Your task to perform on an android device: Open network settings Image 0: 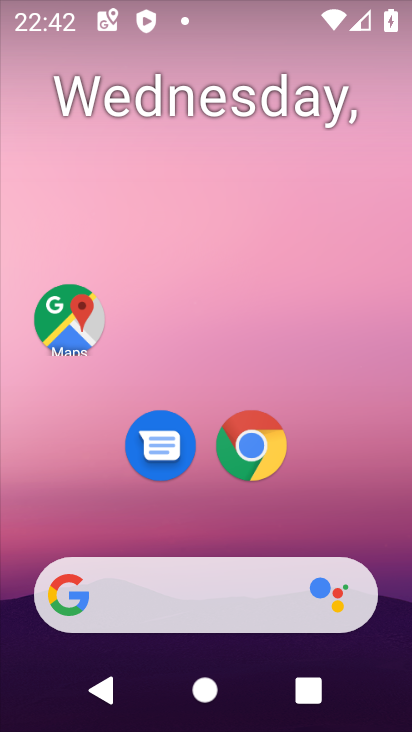
Step 0: drag from (338, 501) to (363, 215)
Your task to perform on an android device: Open network settings Image 1: 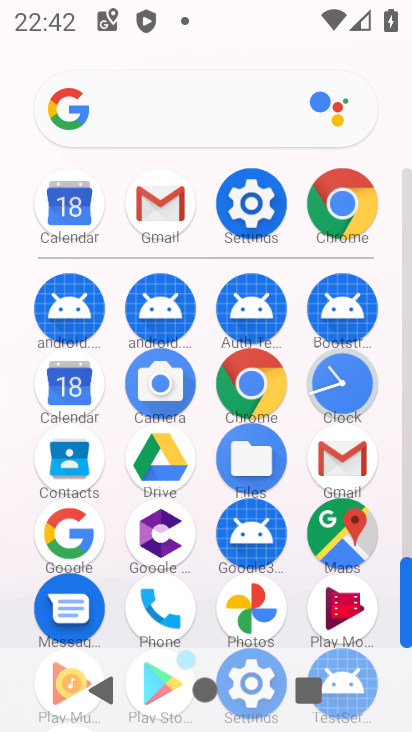
Step 1: click (265, 195)
Your task to perform on an android device: Open network settings Image 2: 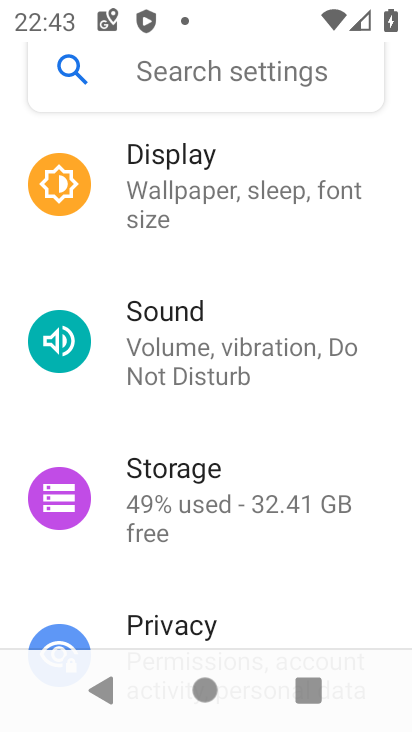
Step 2: drag from (200, 173) to (169, 581)
Your task to perform on an android device: Open network settings Image 3: 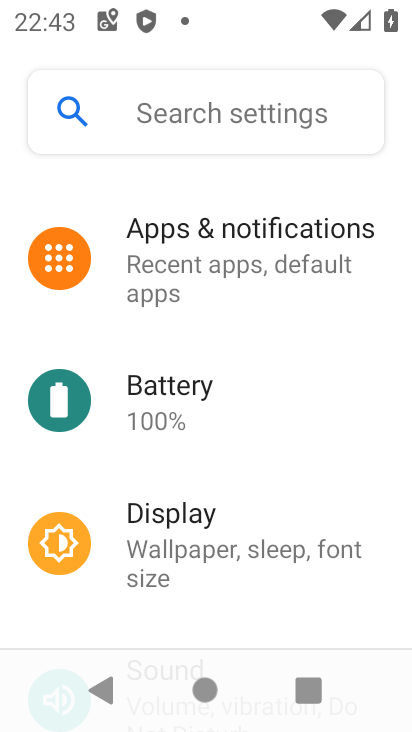
Step 3: drag from (220, 277) to (247, 560)
Your task to perform on an android device: Open network settings Image 4: 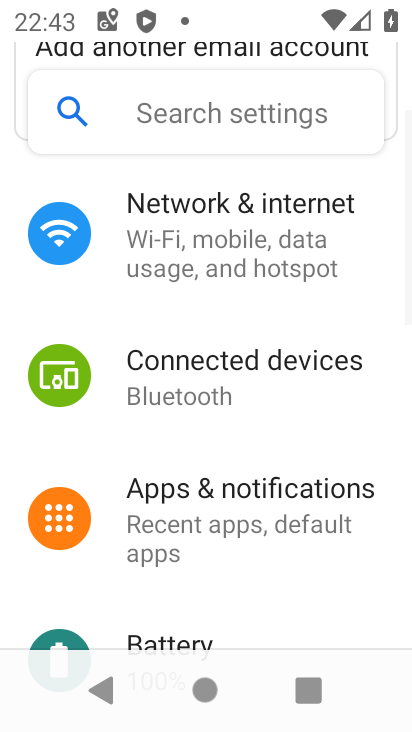
Step 4: click (218, 235)
Your task to perform on an android device: Open network settings Image 5: 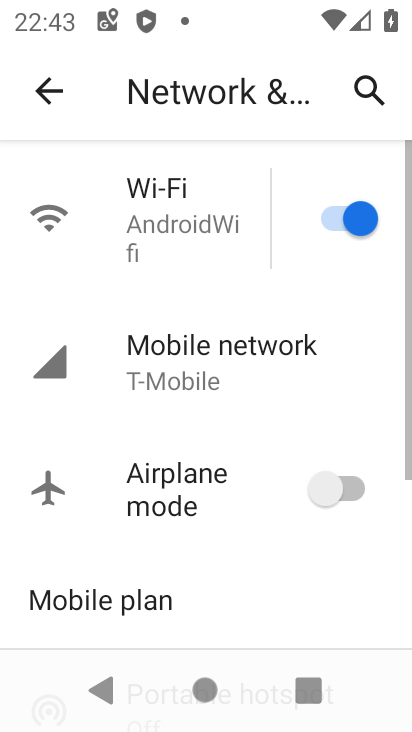
Step 5: task complete